Your task to perform on an android device: Open Maps and search for coffee Image 0: 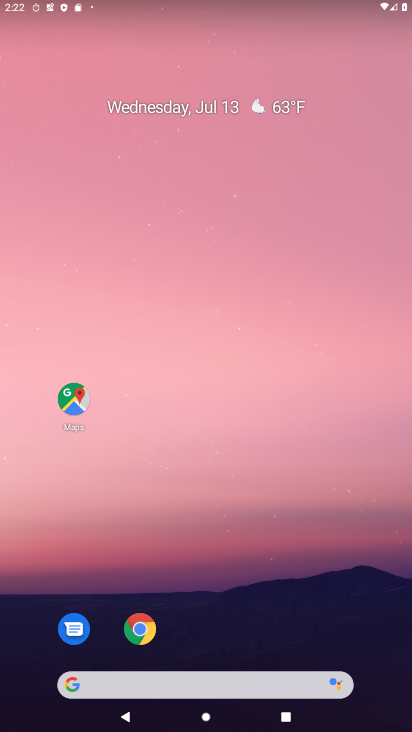
Step 0: drag from (185, 628) to (200, 180)
Your task to perform on an android device: Open Maps and search for coffee Image 1: 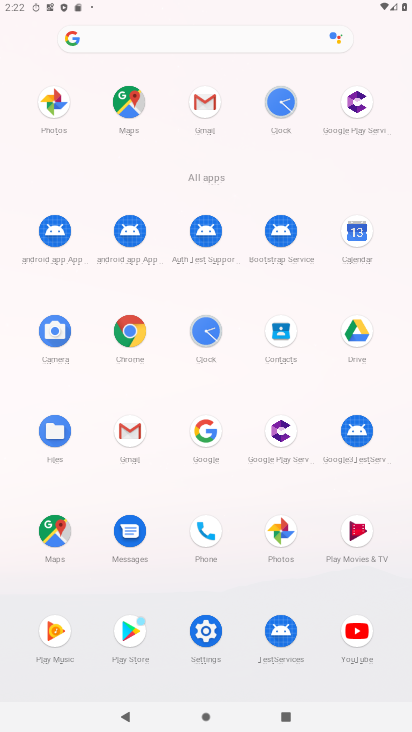
Step 1: click (51, 524)
Your task to perform on an android device: Open Maps and search for coffee Image 2: 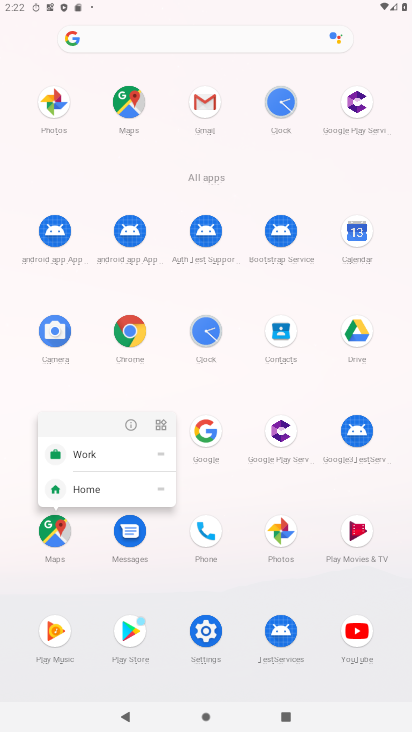
Step 2: click (129, 427)
Your task to perform on an android device: Open Maps and search for coffee Image 3: 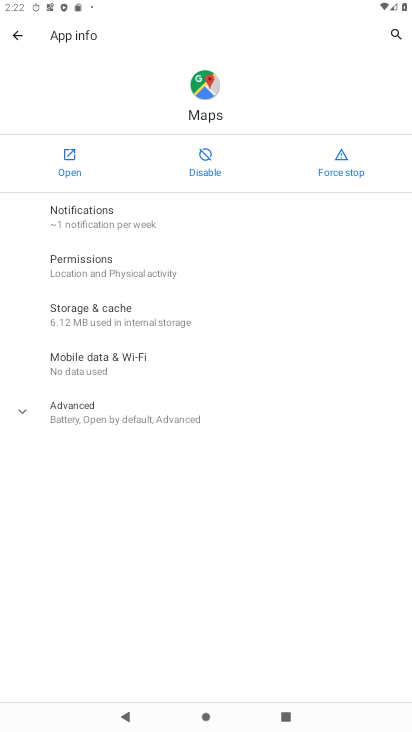
Step 3: click (63, 165)
Your task to perform on an android device: Open Maps and search for coffee Image 4: 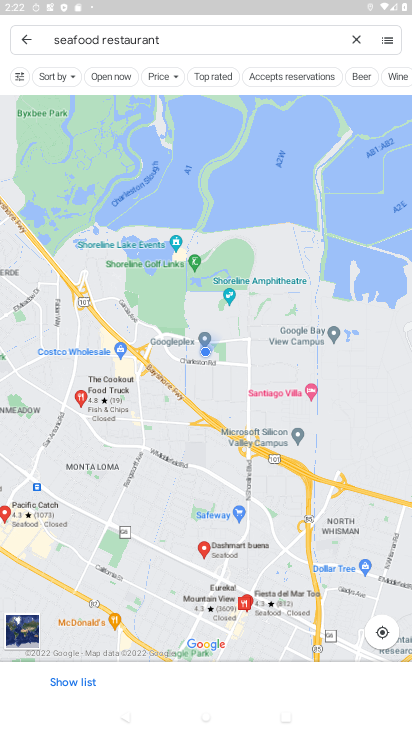
Step 4: click (356, 38)
Your task to perform on an android device: Open Maps and search for coffee Image 5: 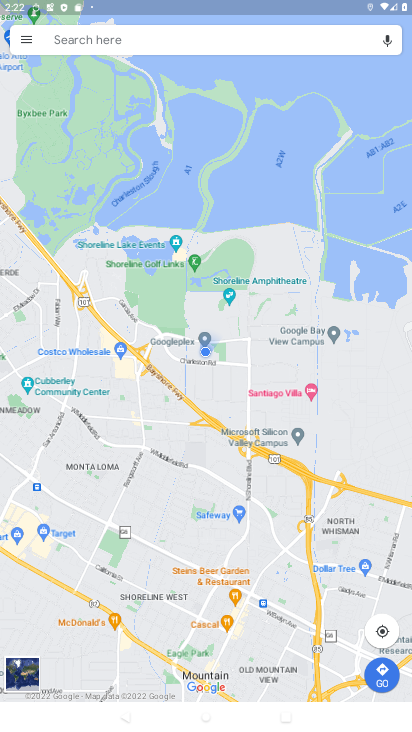
Step 5: click (148, 35)
Your task to perform on an android device: Open Maps and search for coffee Image 6: 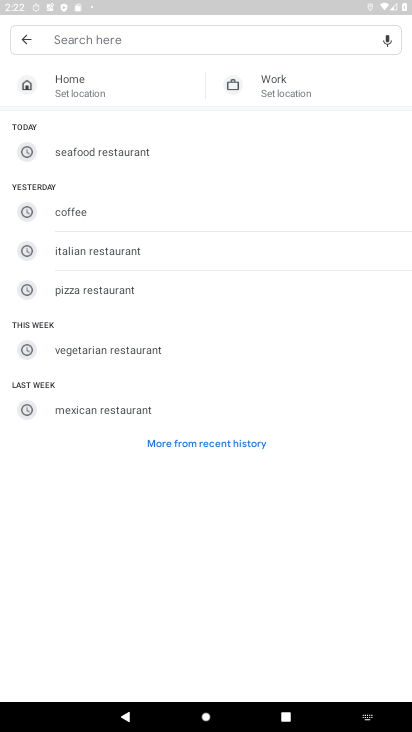
Step 6: type "coffee"
Your task to perform on an android device: Open Maps and search for coffee Image 7: 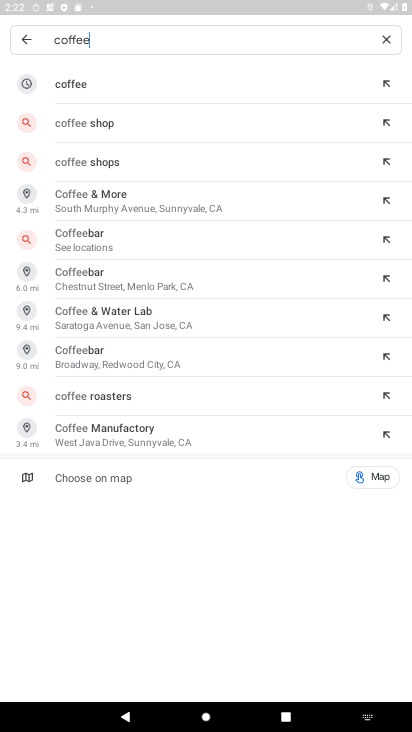
Step 7: click (77, 89)
Your task to perform on an android device: Open Maps and search for coffee Image 8: 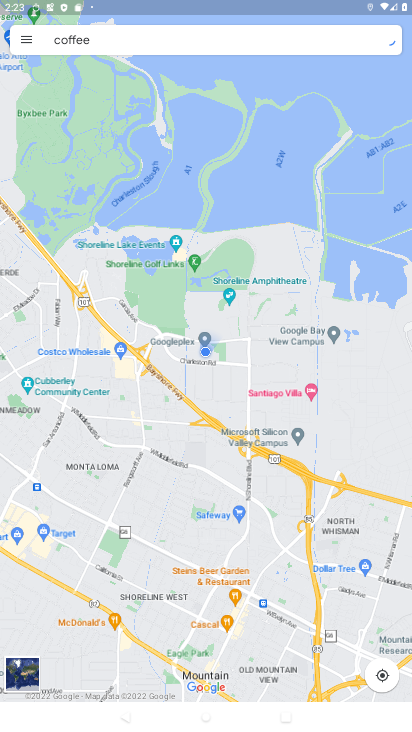
Step 8: task complete